Your task to perform on an android device: Set an alarm for 11am Image 0: 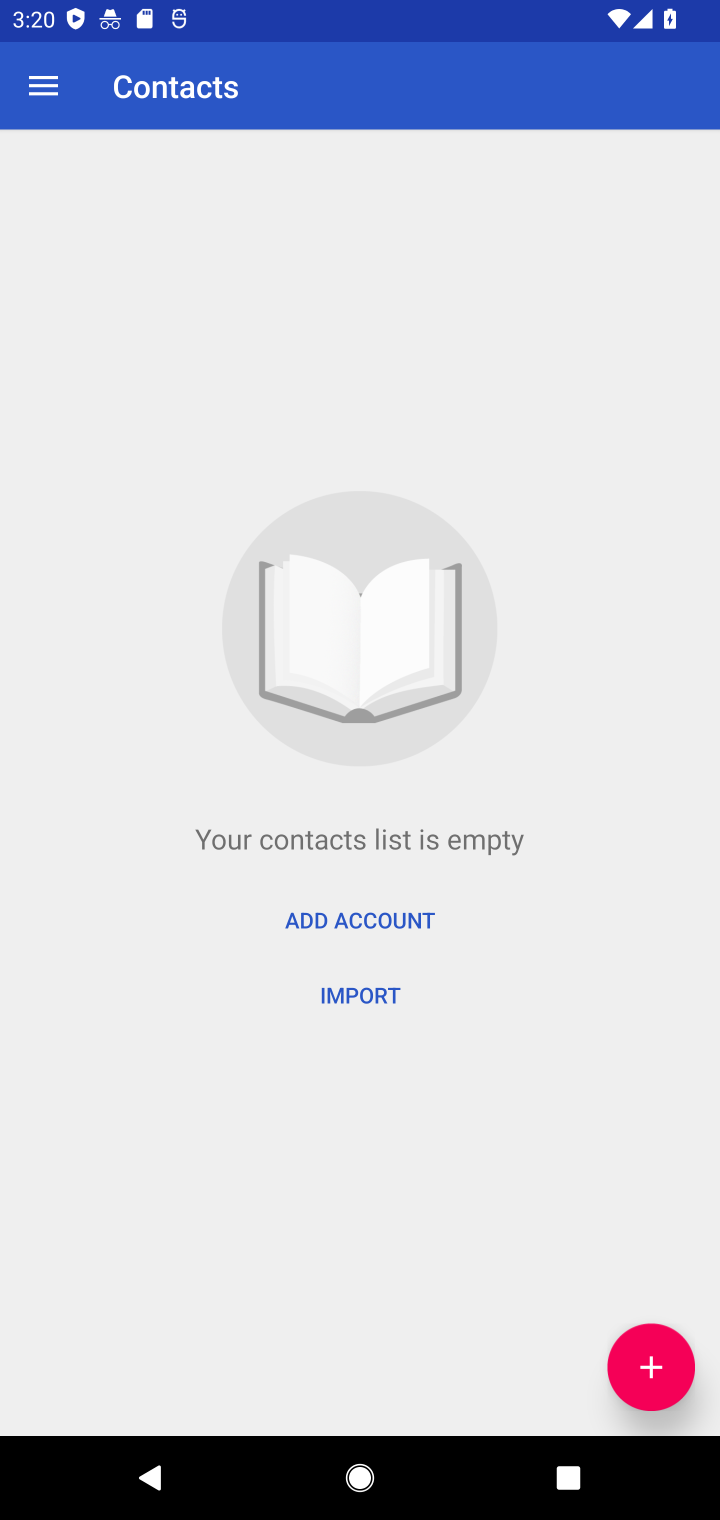
Step 0: press home button
Your task to perform on an android device: Set an alarm for 11am Image 1: 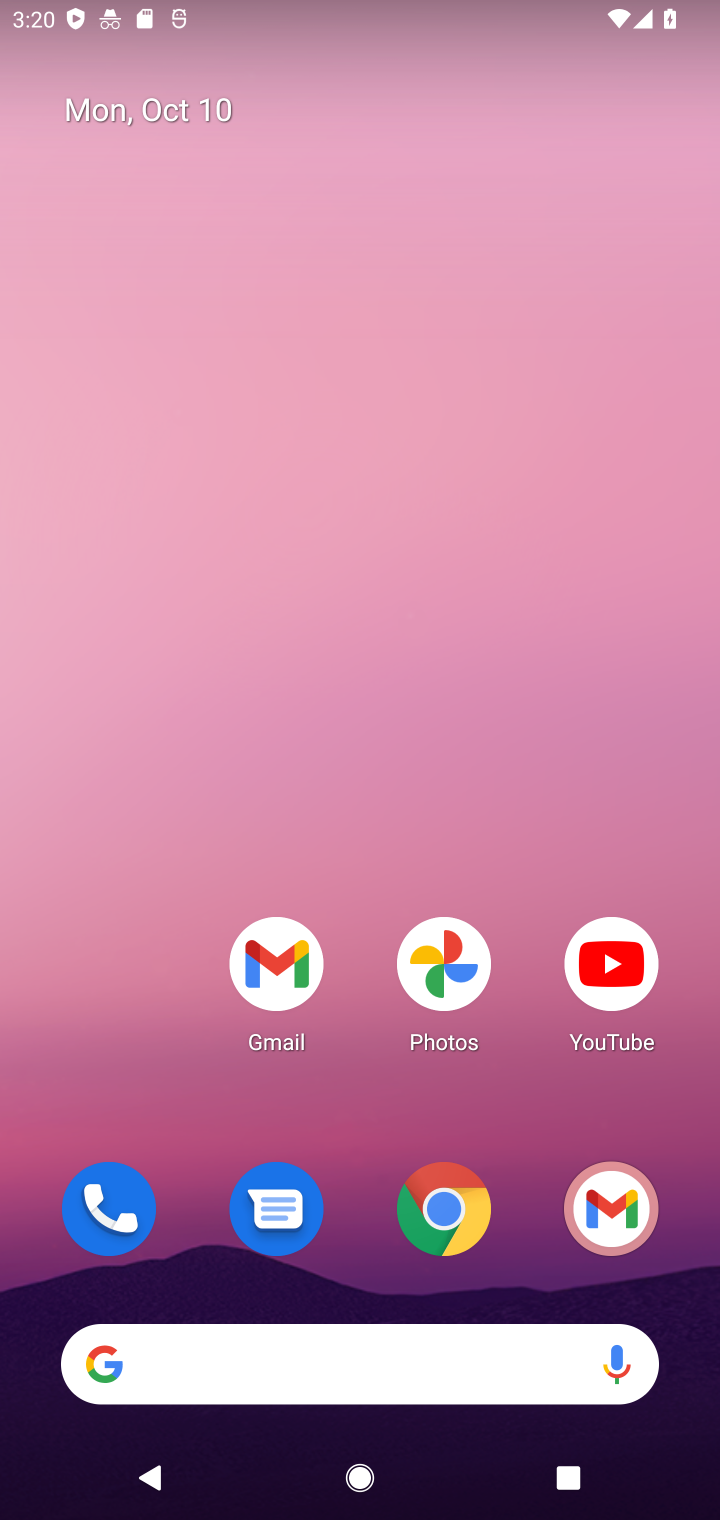
Step 1: drag from (381, 1332) to (292, 69)
Your task to perform on an android device: Set an alarm for 11am Image 2: 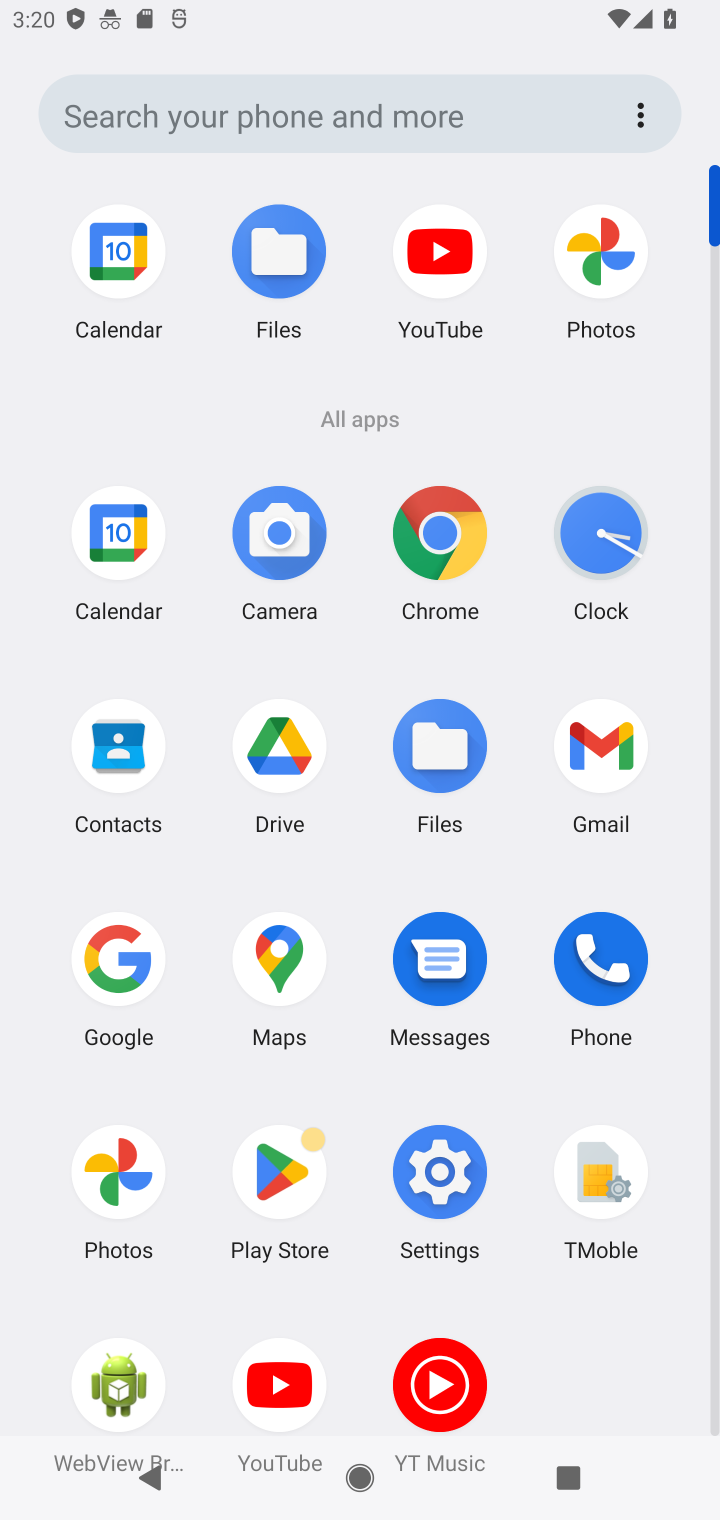
Step 2: click (606, 533)
Your task to perform on an android device: Set an alarm for 11am Image 3: 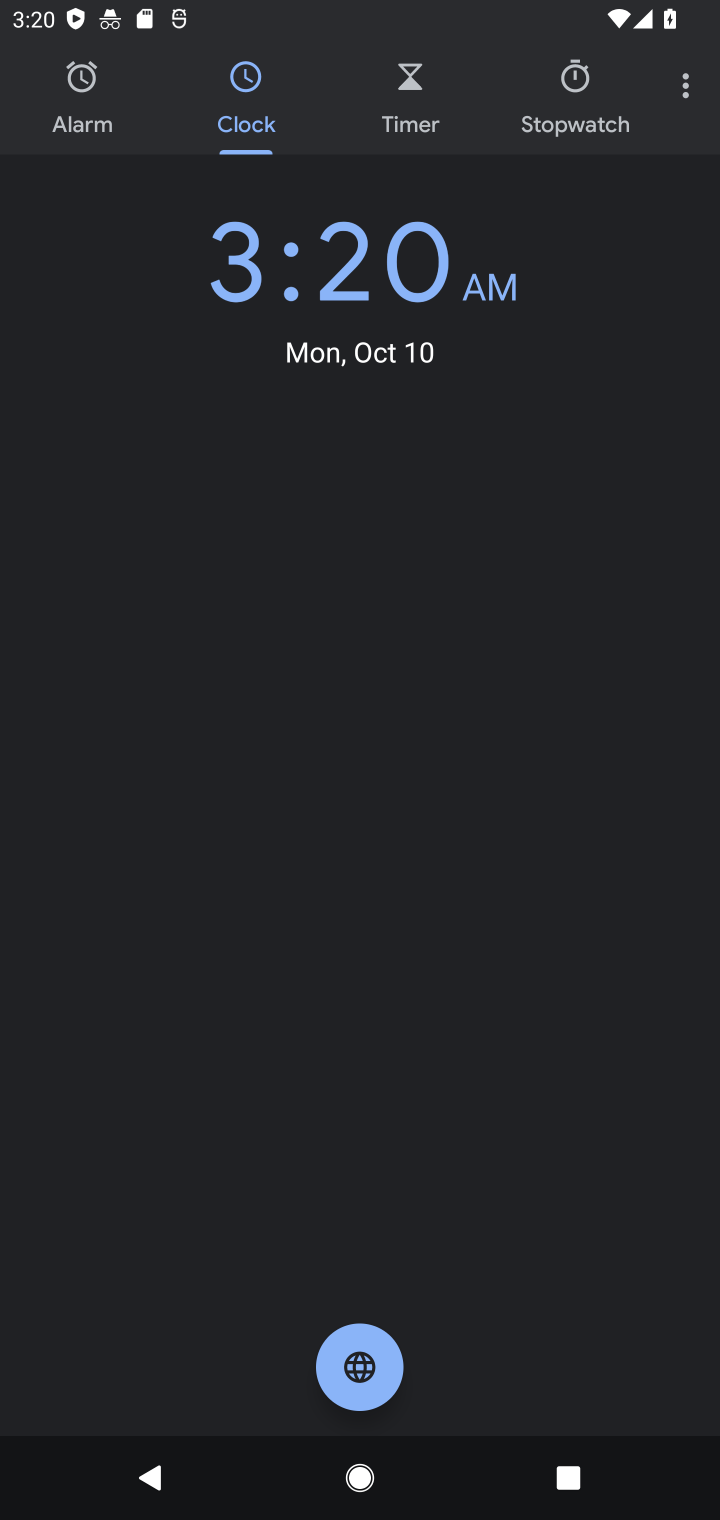
Step 3: click (88, 70)
Your task to perform on an android device: Set an alarm for 11am Image 4: 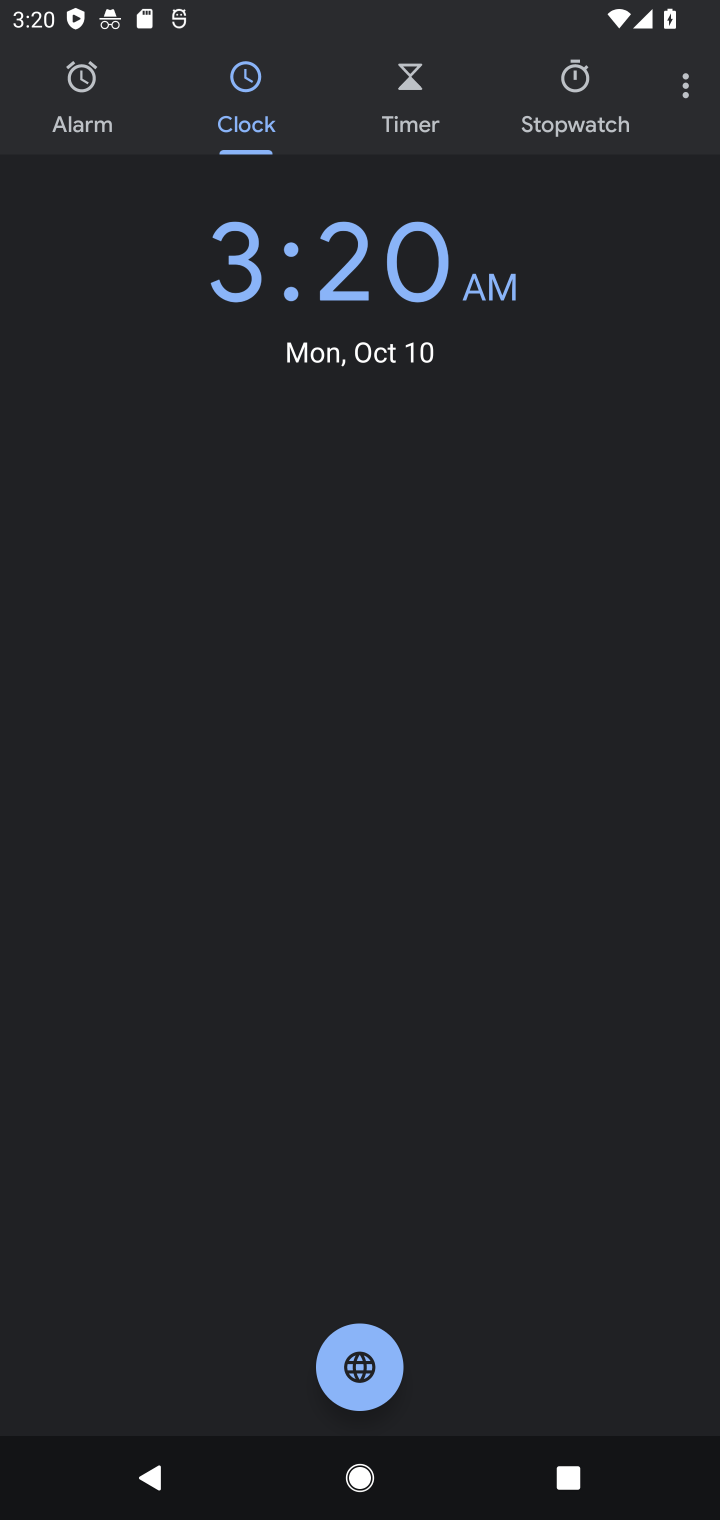
Step 4: click (87, 106)
Your task to perform on an android device: Set an alarm for 11am Image 5: 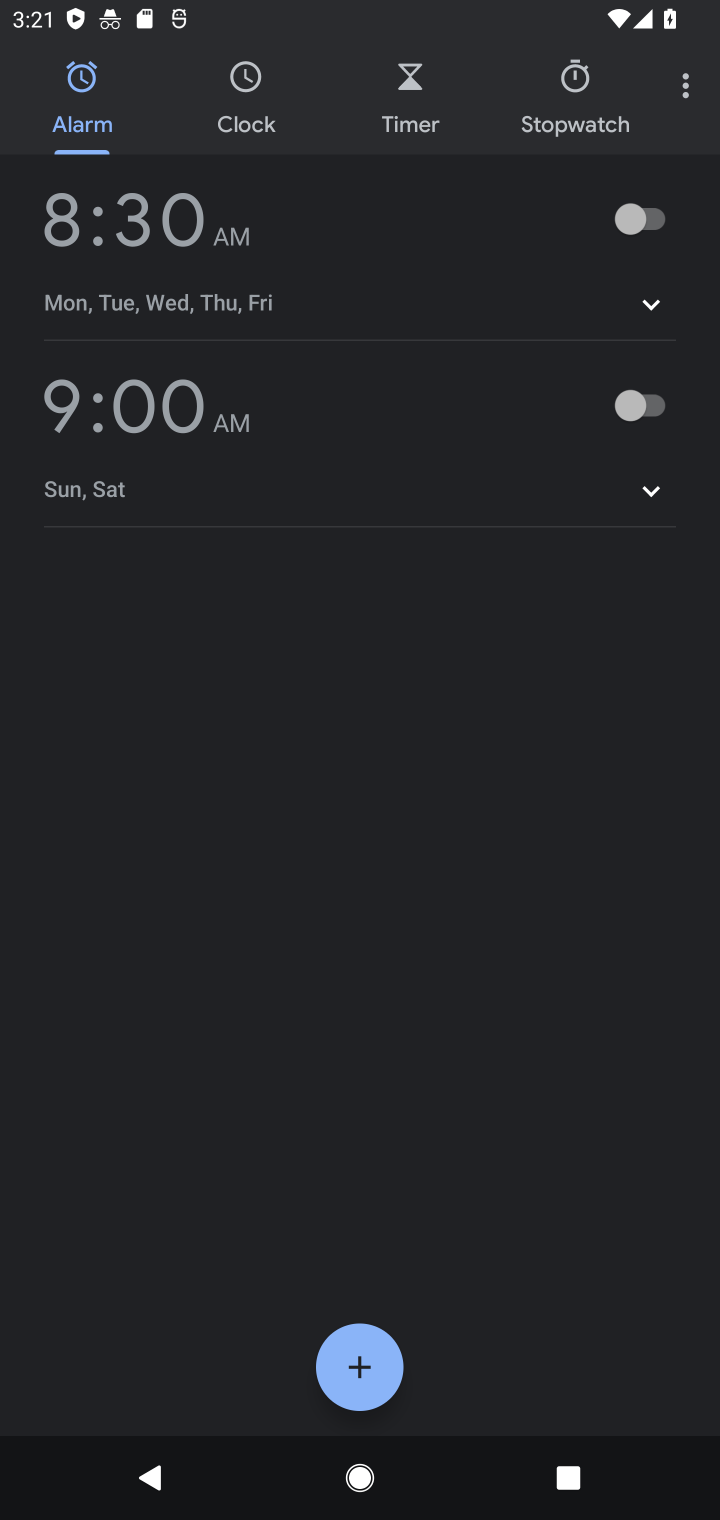
Step 5: click (372, 1348)
Your task to perform on an android device: Set an alarm for 11am Image 6: 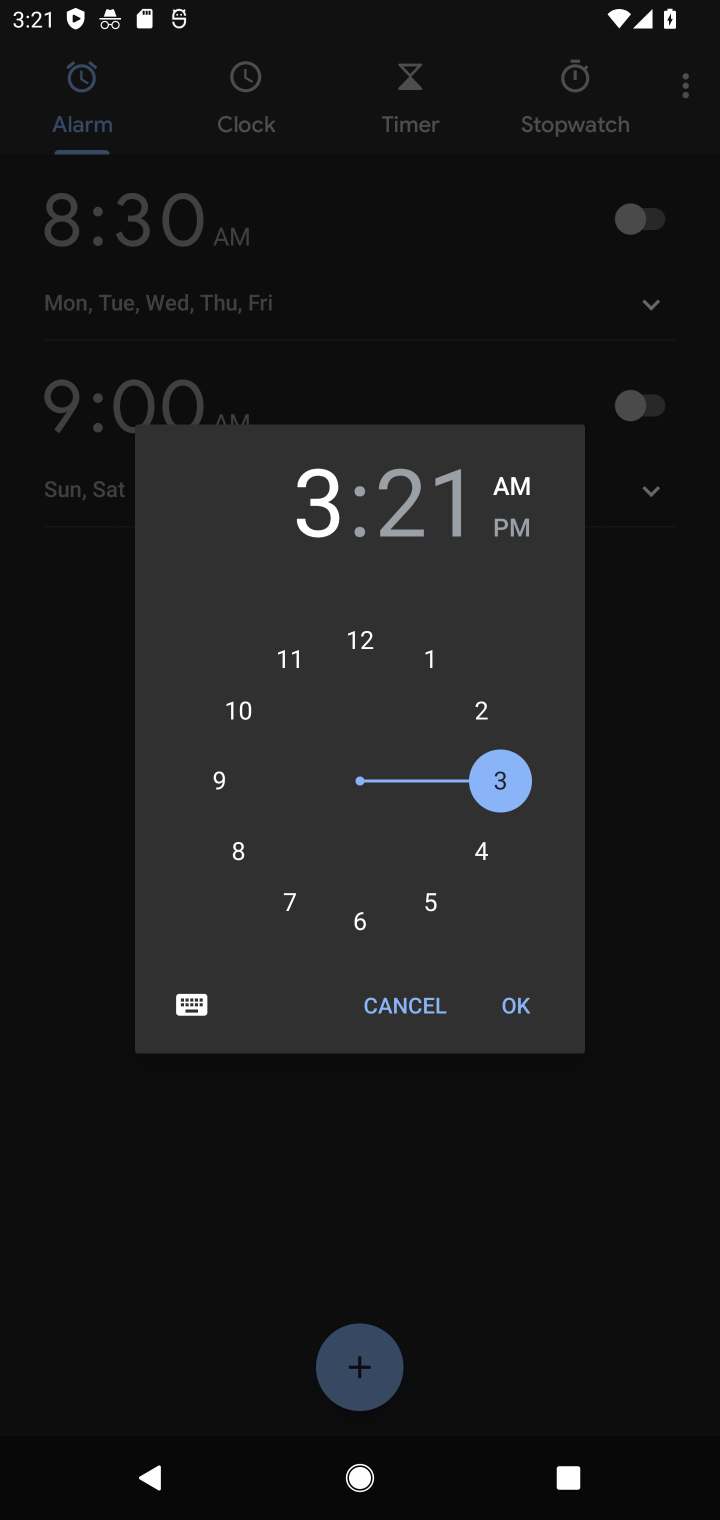
Step 6: click (363, 930)
Your task to perform on an android device: Set an alarm for 11am Image 7: 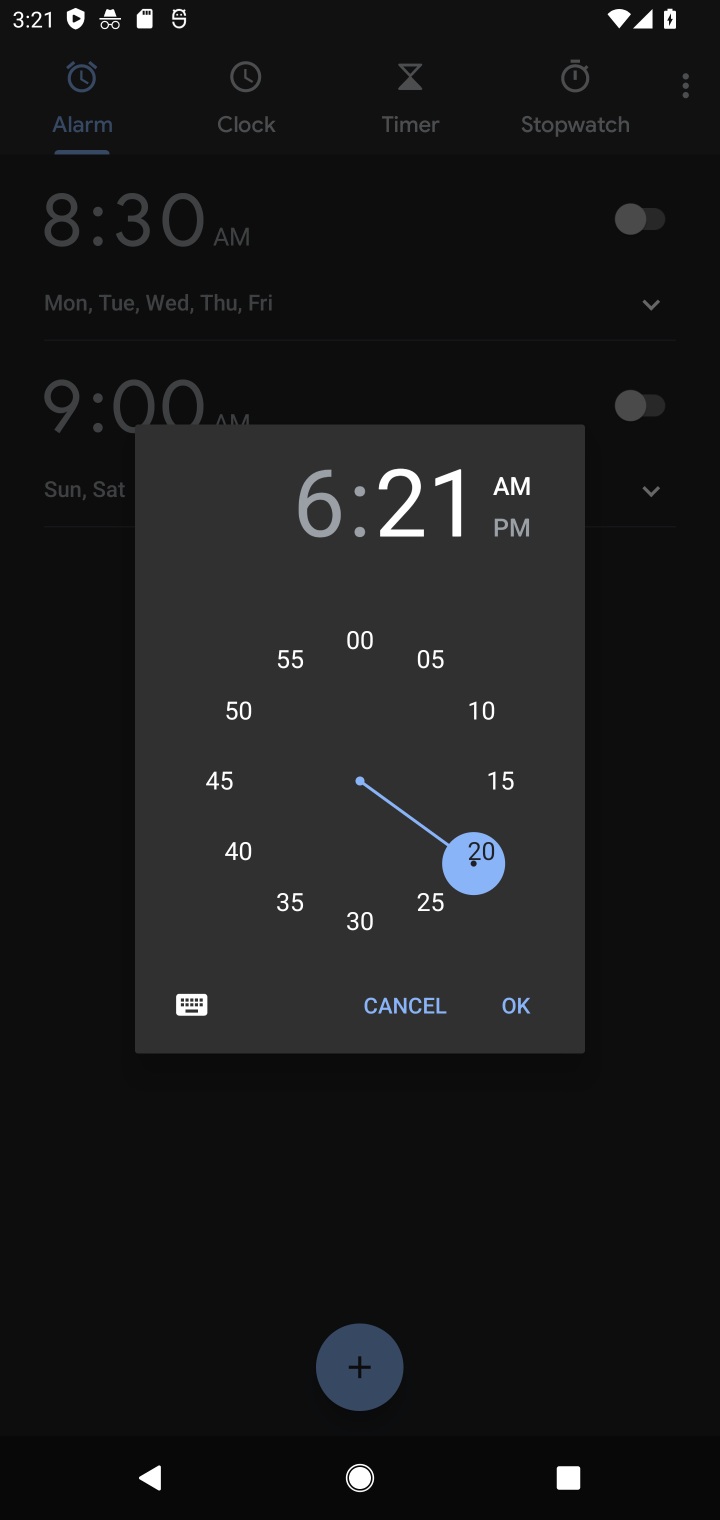
Step 7: click (530, 1023)
Your task to perform on an android device: Set an alarm for 11am Image 8: 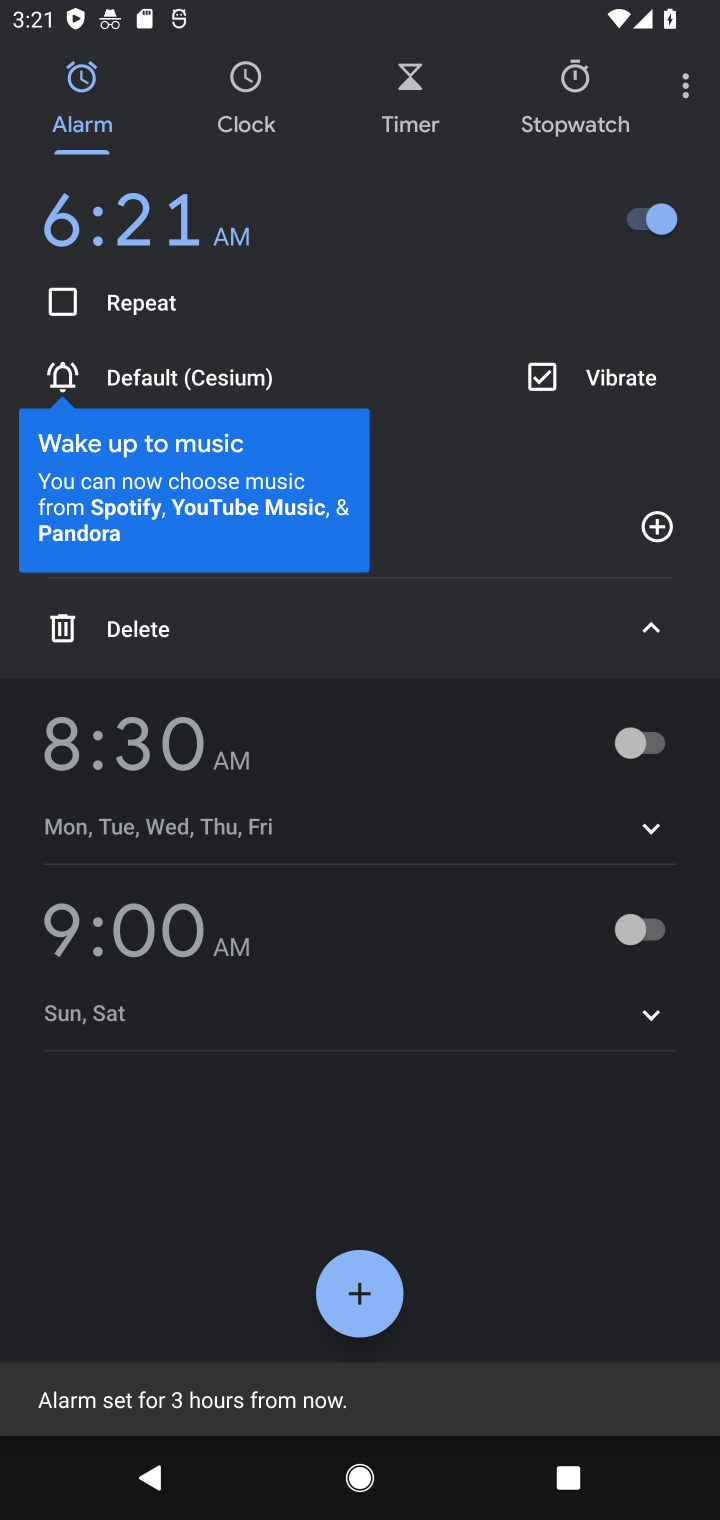
Step 8: task complete